Your task to perform on an android device: turn on airplane mode Image 0: 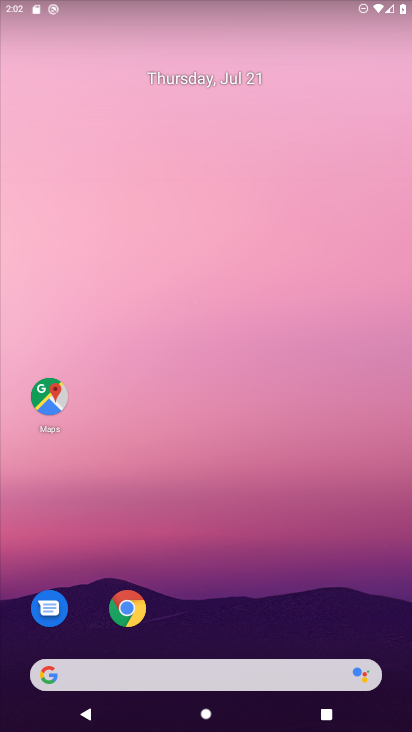
Step 0: drag from (229, 715) to (209, 214)
Your task to perform on an android device: turn on airplane mode Image 1: 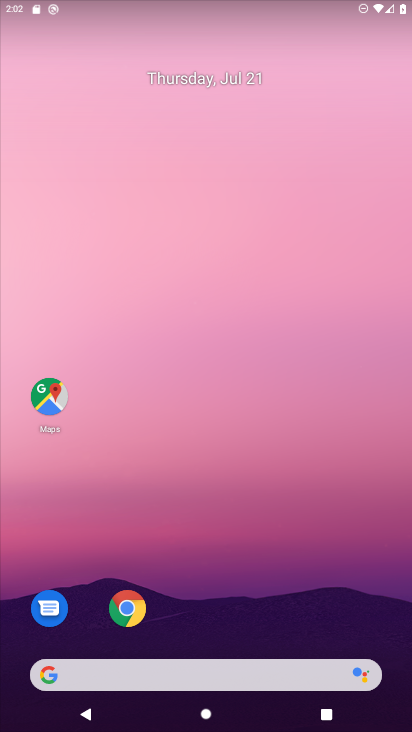
Step 1: drag from (229, 726) to (206, 147)
Your task to perform on an android device: turn on airplane mode Image 2: 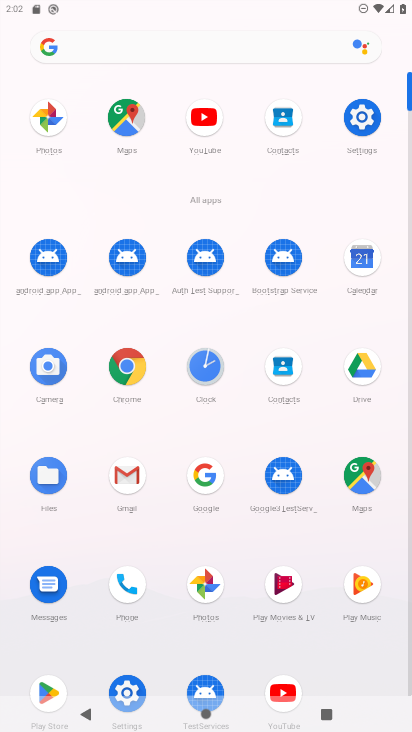
Step 2: click (363, 118)
Your task to perform on an android device: turn on airplane mode Image 3: 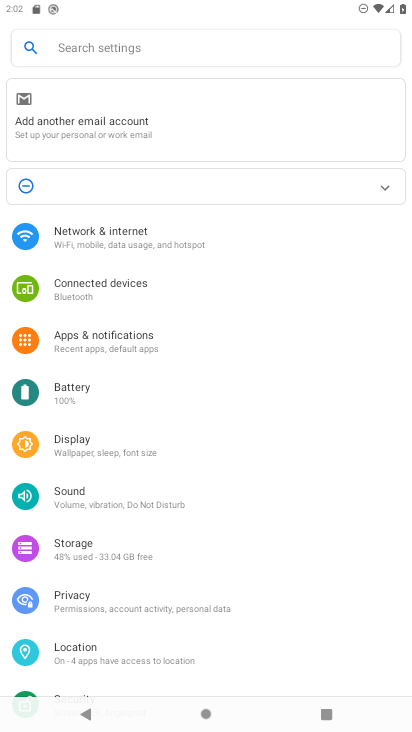
Step 3: click (102, 244)
Your task to perform on an android device: turn on airplane mode Image 4: 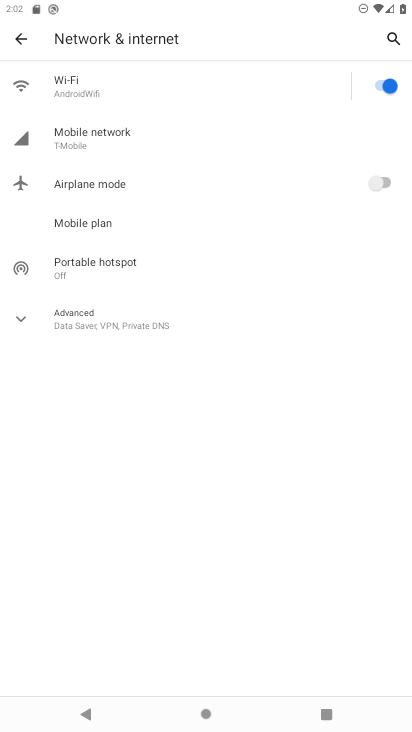
Step 4: click (384, 183)
Your task to perform on an android device: turn on airplane mode Image 5: 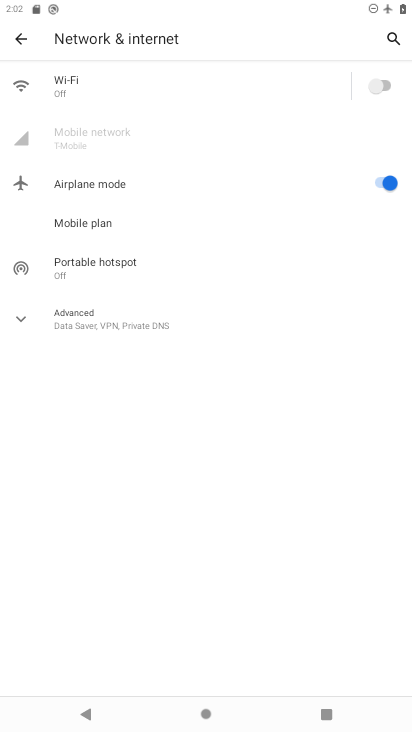
Step 5: task complete